Your task to perform on an android device: turn on bluetooth scan Image 0: 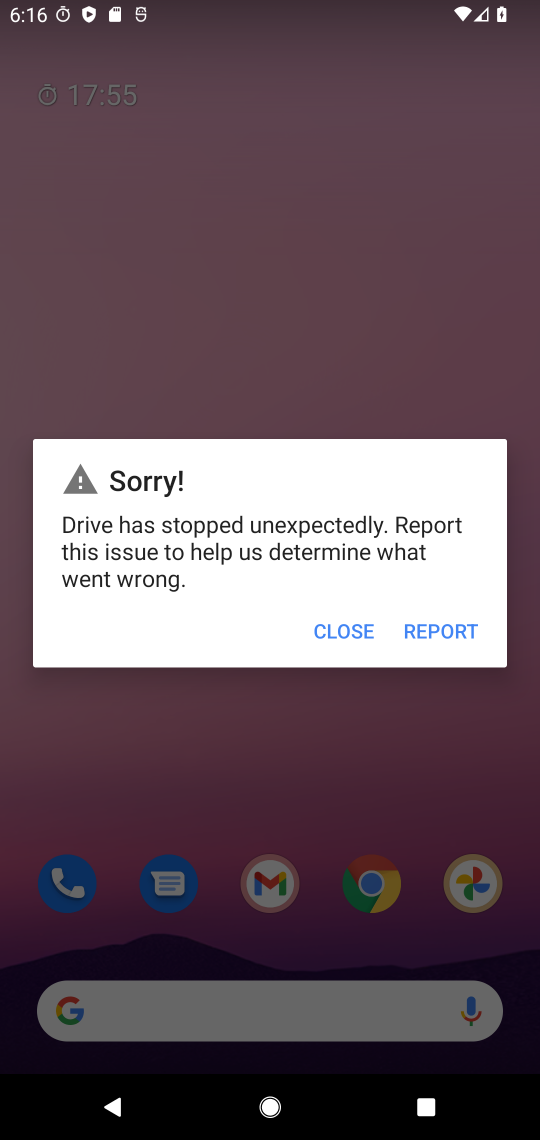
Step 0: click (346, 649)
Your task to perform on an android device: turn on bluetooth scan Image 1: 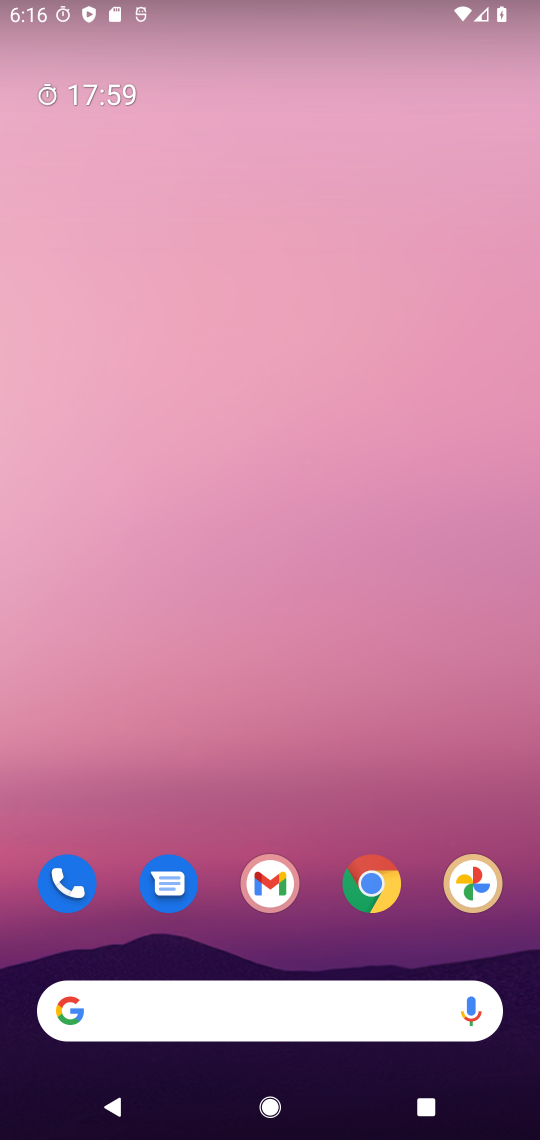
Step 1: drag from (284, 809) to (285, 237)
Your task to perform on an android device: turn on bluetooth scan Image 2: 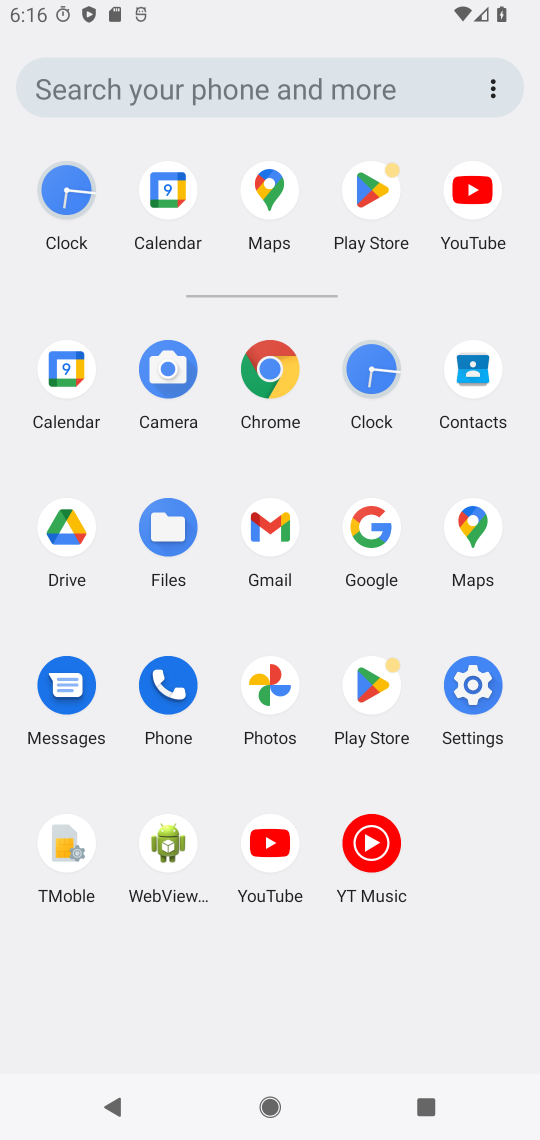
Step 2: click (459, 678)
Your task to perform on an android device: turn on bluetooth scan Image 3: 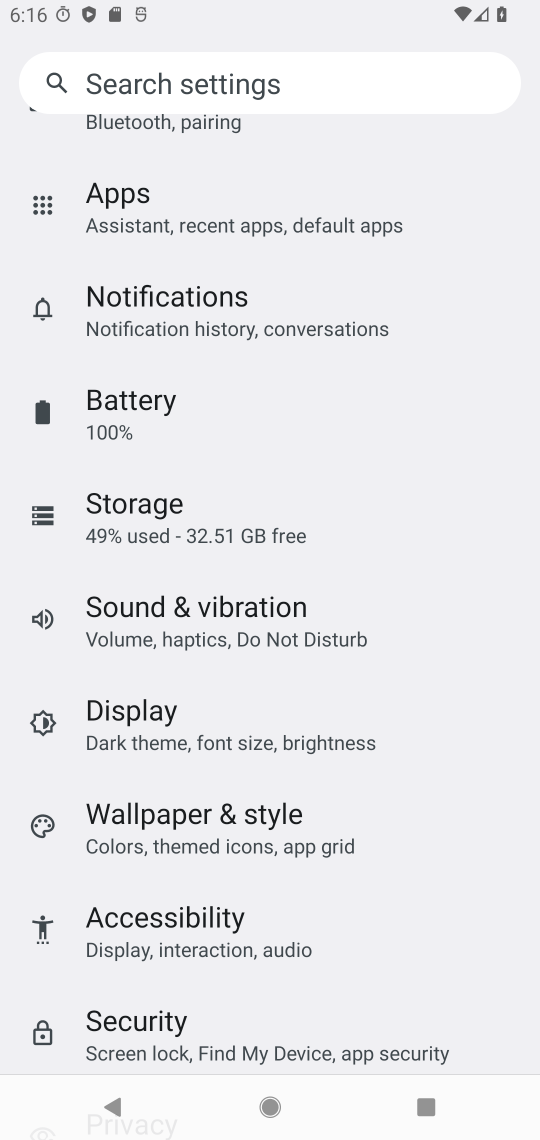
Step 3: drag from (334, 801) to (343, 351)
Your task to perform on an android device: turn on bluetooth scan Image 4: 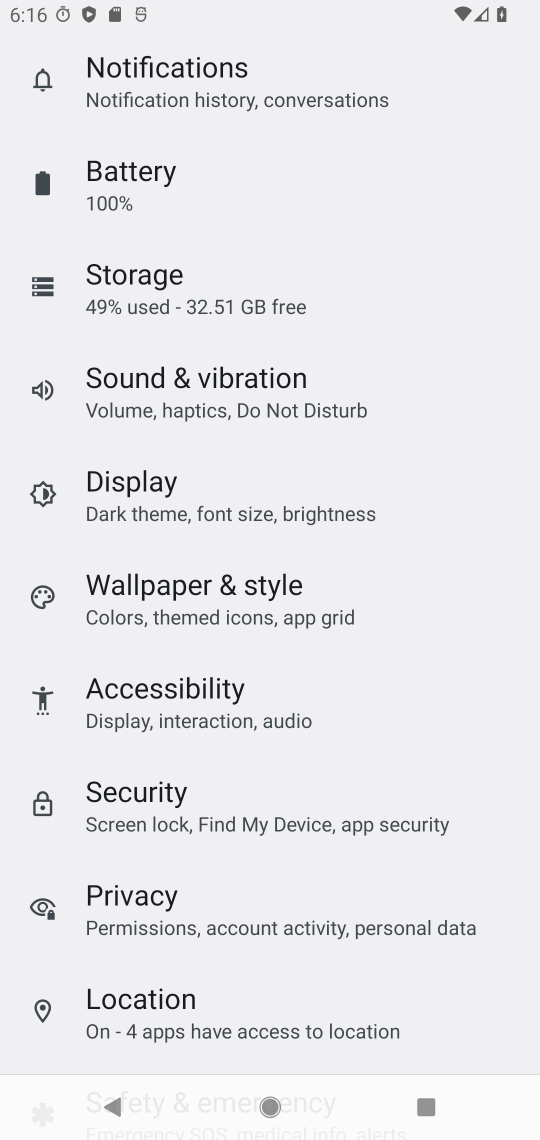
Step 4: click (243, 1004)
Your task to perform on an android device: turn on bluetooth scan Image 5: 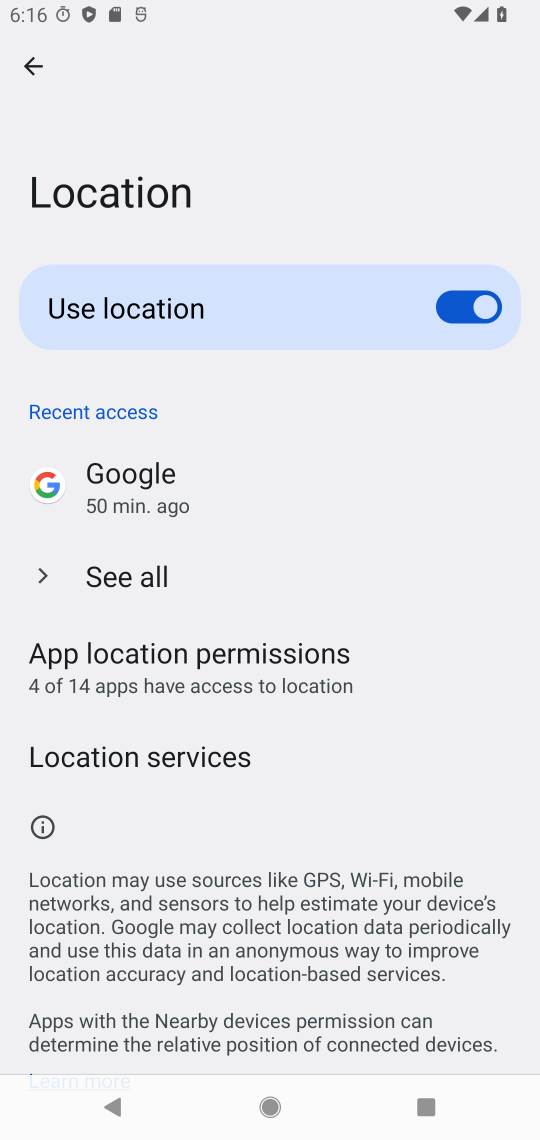
Step 5: click (178, 749)
Your task to perform on an android device: turn on bluetooth scan Image 6: 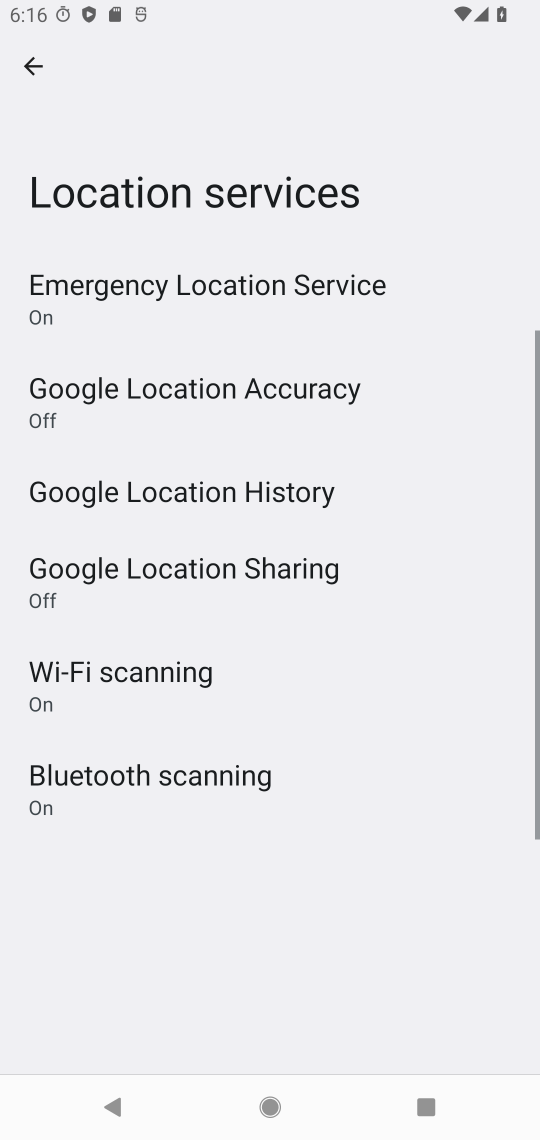
Step 6: click (202, 778)
Your task to perform on an android device: turn on bluetooth scan Image 7: 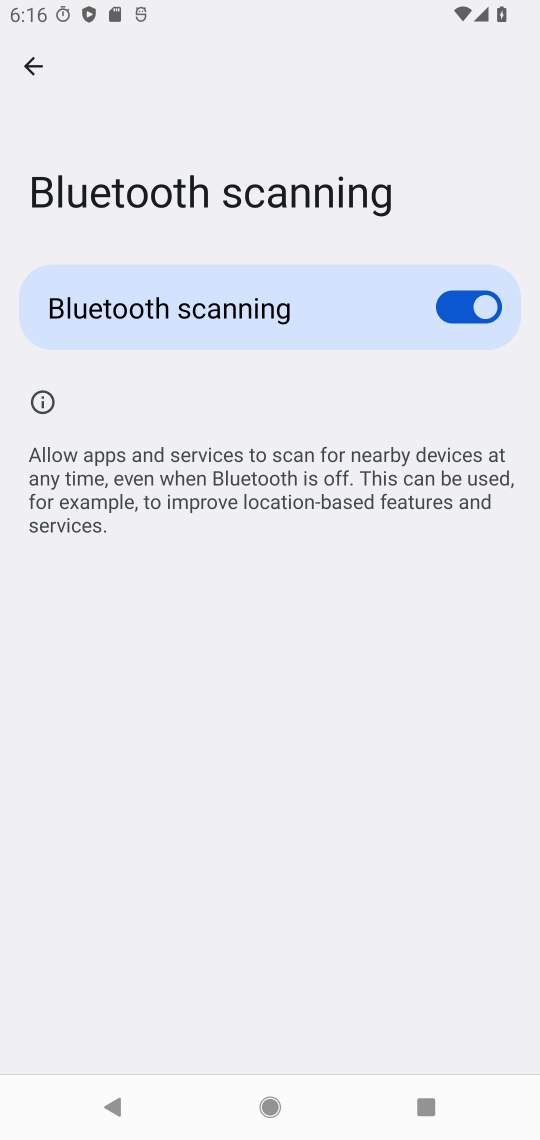
Step 7: task complete